Your task to perform on an android device: clear history in the chrome app Image 0: 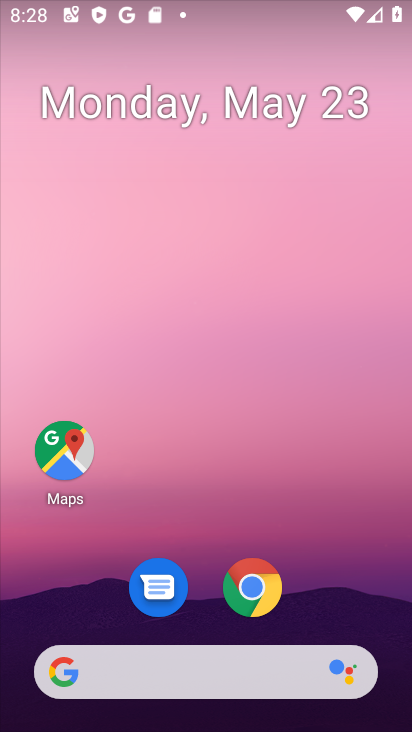
Step 0: press home button
Your task to perform on an android device: clear history in the chrome app Image 1: 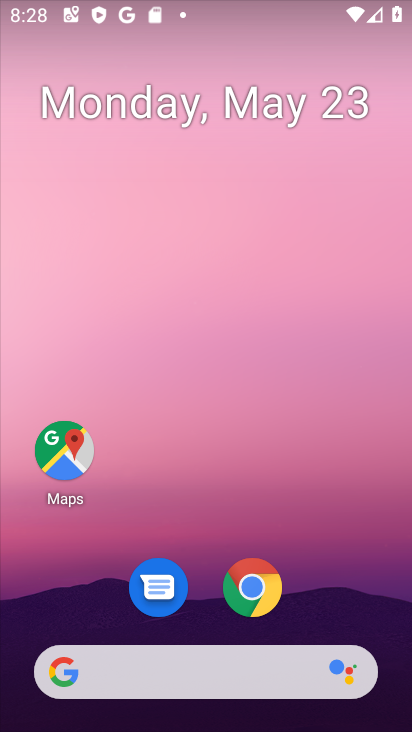
Step 1: drag from (202, 528) to (229, 40)
Your task to perform on an android device: clear history in the chrome app Image 2: 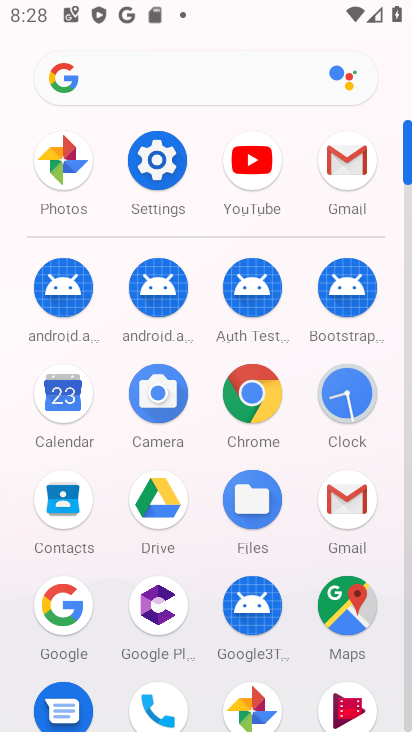
Step 2: click (251, 408)
Your task to perform on an android device: clear history in the chrome app Image 3: 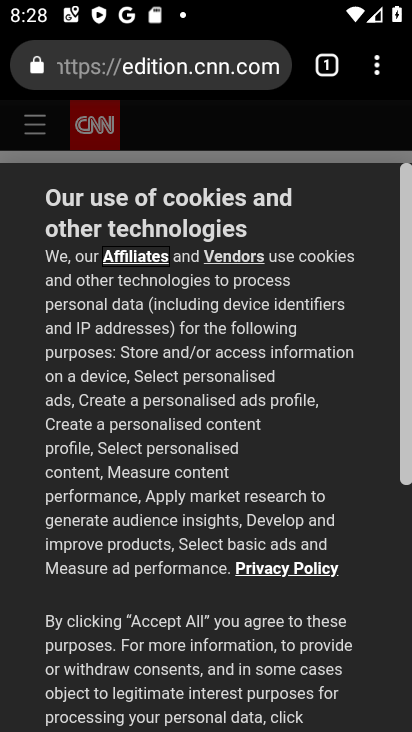
Step 3: drag from (375, 61) to (160, 366)
Your task to perform on an android device: clear history in the chrome app Image 4: 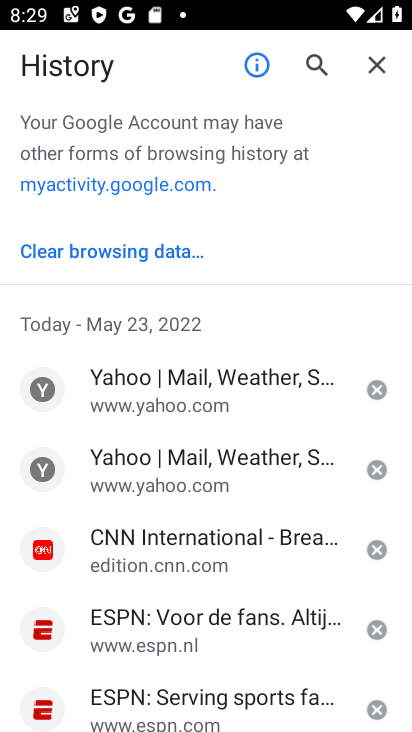
Step 4: click (150, 256)
Your task to perform on an android device: clear history in the chrome app Image 5: 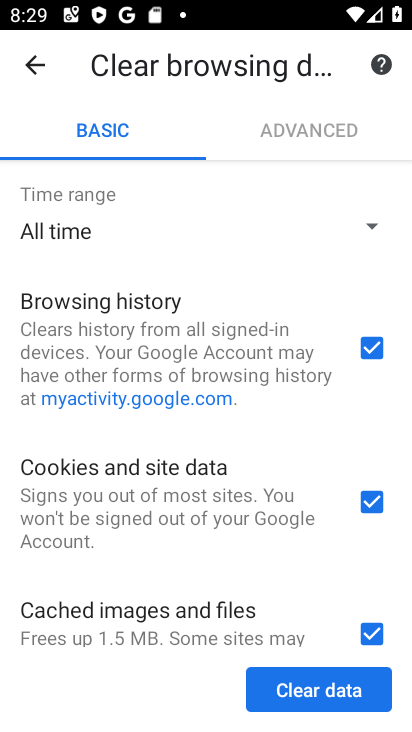
Step 5: click (315, 680)
Your task to perform on an android device: clear history in the chrome app Image 6: 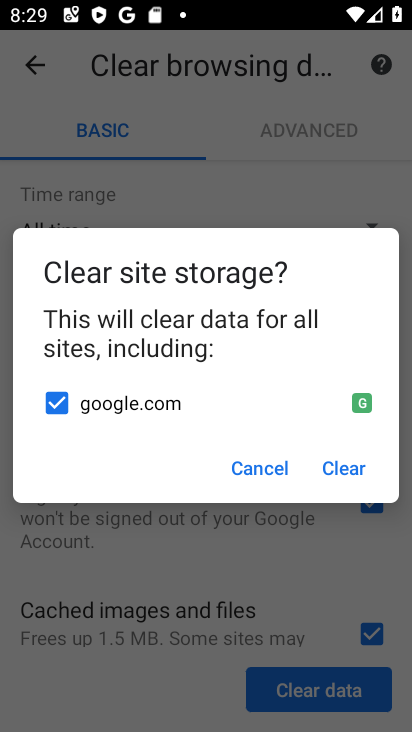
Step 6: click (336, 464)
Your task to perform on an android device: clear history in the chrome app Image 7: 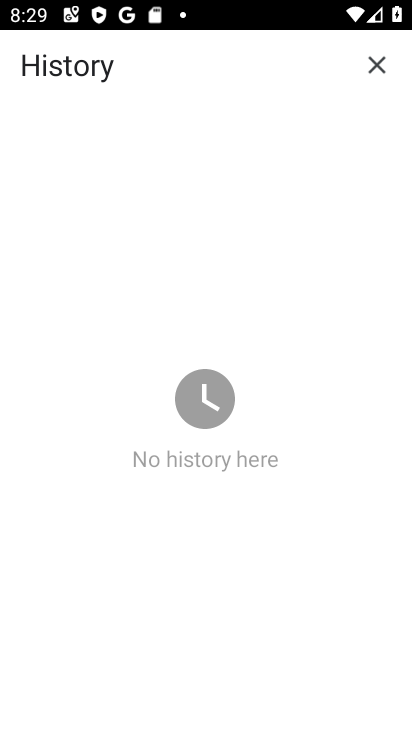
Step 7: task complete